Your task to perform on an android device: Show me productivity apps on the Play Store Image 0: 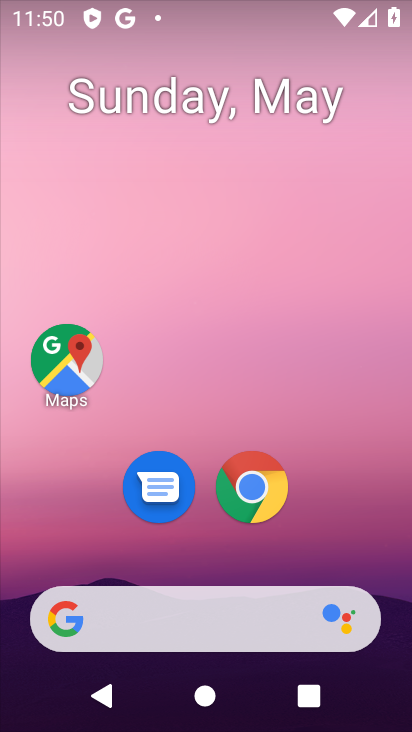
Step 0: drag from (322, 558) to (337, 2)
Your task to perform on an android device: Show me productivity apps on the Play Store Image 1: 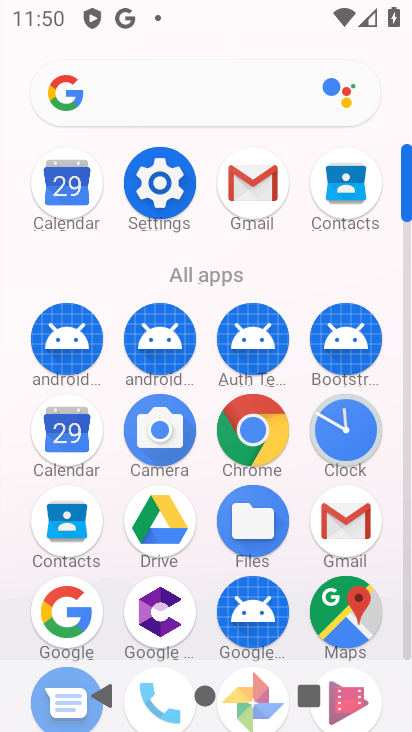
Step 1: drag from (197, 616) to (237, 237)
Your task to perform on an android device: Show me productivity apps on the Play Store Image 2: 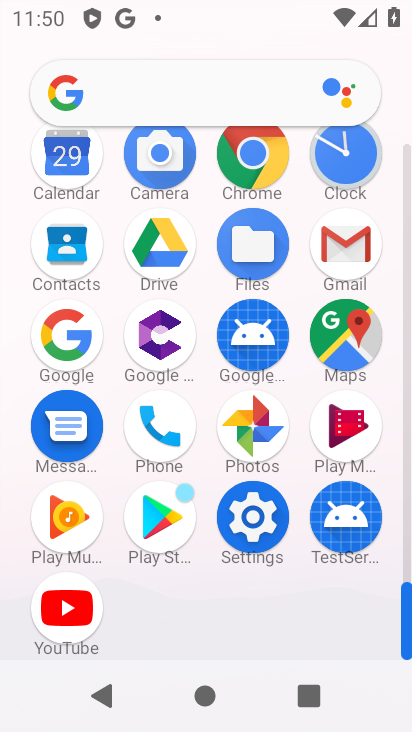
Step 2: click (156, 514)
Your task to perform on an android device: Show me productivity apps on the Play Store Image 3: 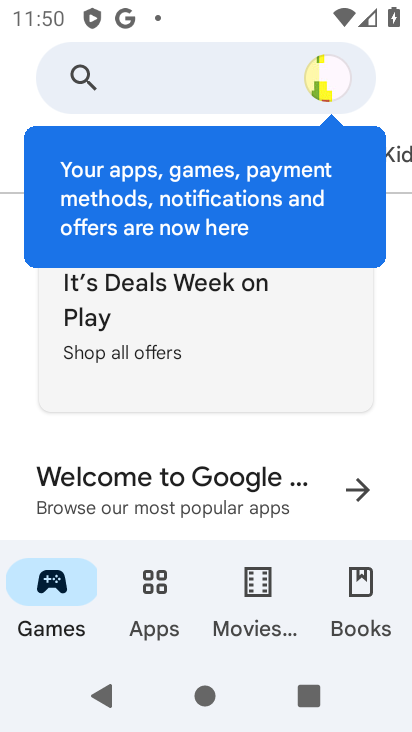
Step 3: click (146, 607)
Your task to perform on an android device: Show me productivity apps on the Play Store Image 4: 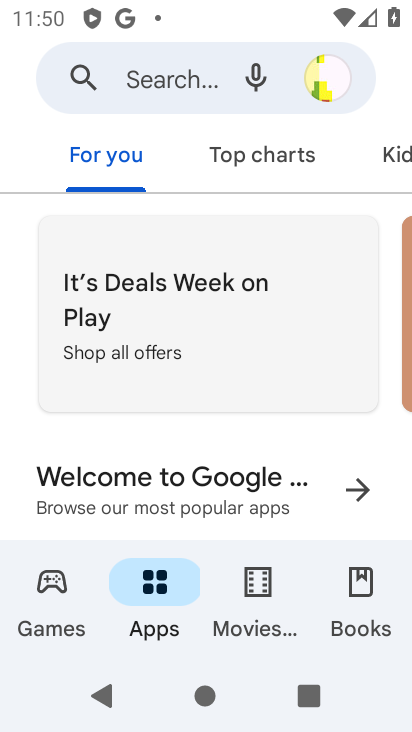
Step 4: drag from (394, 151) to (2, 144)
Your task to perform on an android device: Show me productivity apps on the Play Store Image 5: 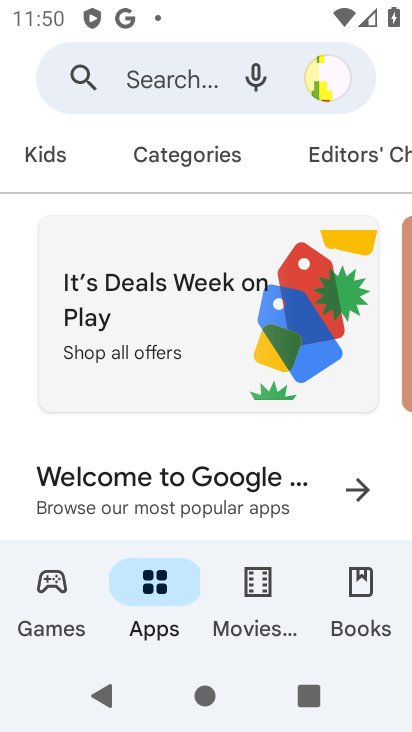
Step 5: click (198, 168)
Your task to perform on an android device: Show me productivity apps on the Play Store Image 6: 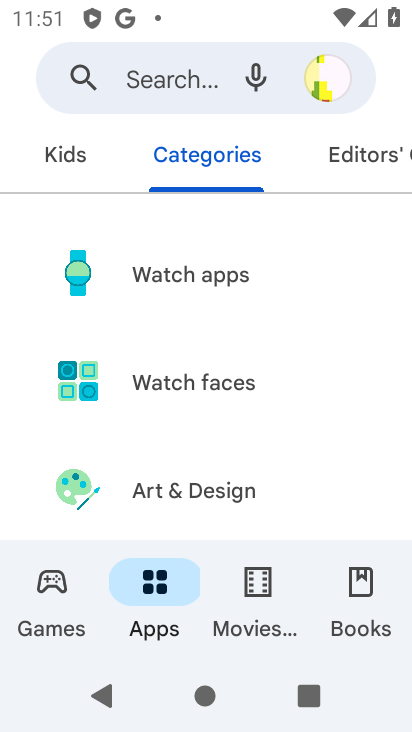
Step 6: drag from (225, 494) to (201, 33)
Your task to perform on an android device: Show me productivity apps on the Play Store Image 7: 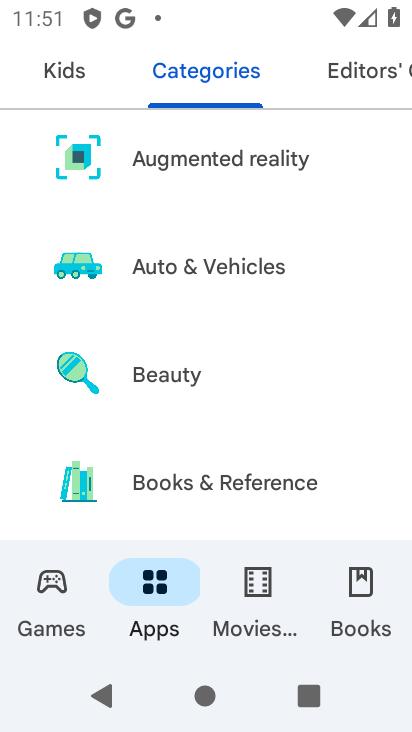
Step 7: drag from (218, 459) to (286, 22)
Your task to perform on an android device: Show me productivity apps on the Play Store Image 8: 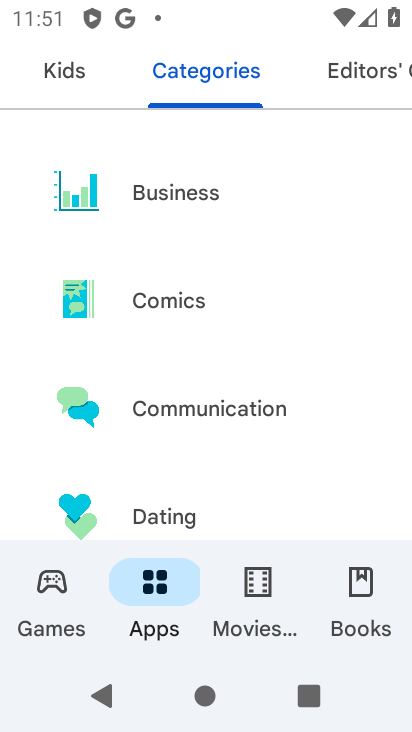
Step 8: drag from (247, 449) to (262, 39)
Your task to perform on an android device: Show me productivity apps on the Play Store Image 9: 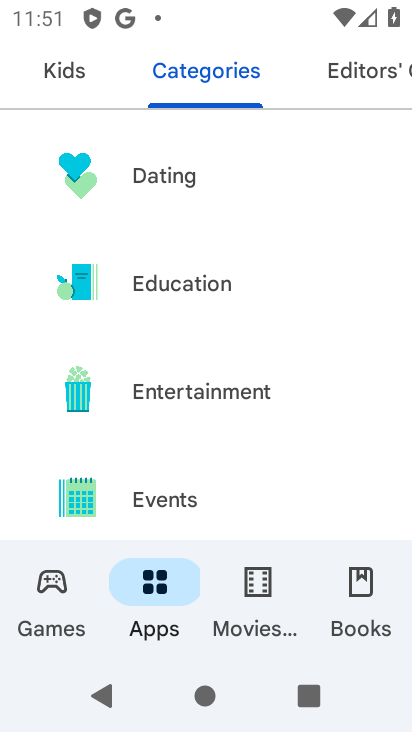
Step 9: drag from (159, 441) to (172, 54)
Your task to perform on an android device: Show me productivity apps on the Play Store Image 10: 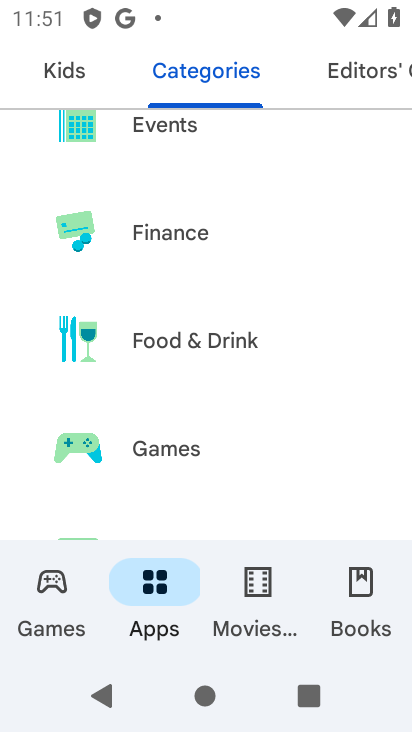
Step 10: drag from (238, 467) to (245, 35)
Your task to perform on an android device: Show me productivity apps on the Play Store Image 11: 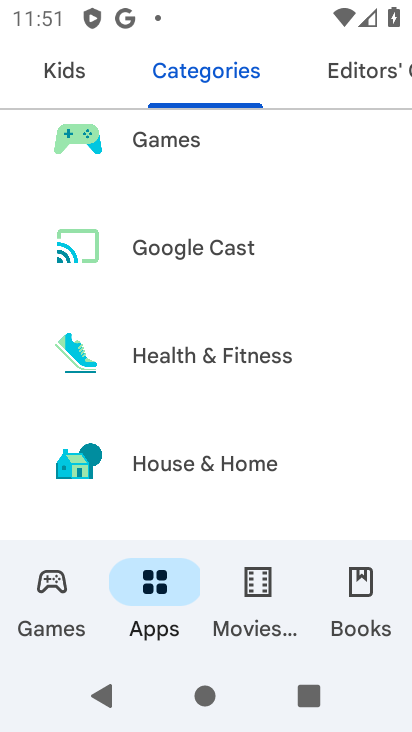
Step 11: drag from (241, 456) to (235, 4)
Your task to perform on an android device: Show me productivity apps on the Play Store Image 12: 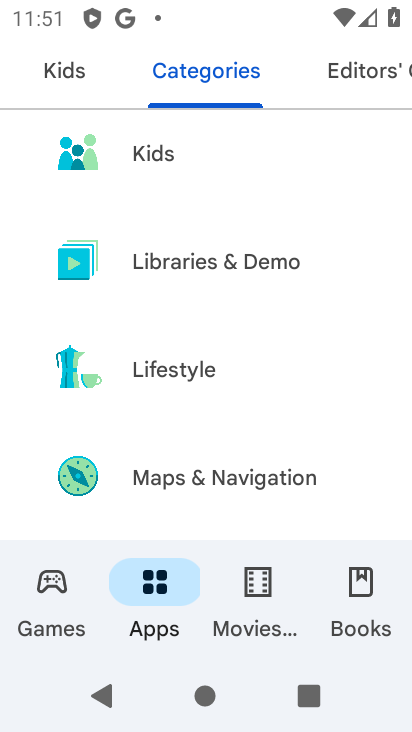
Step 12: drag from (196, 451) to (201, 36)
Your task to perform on an android device: Show me productivity apps on the Play Store Image 13: 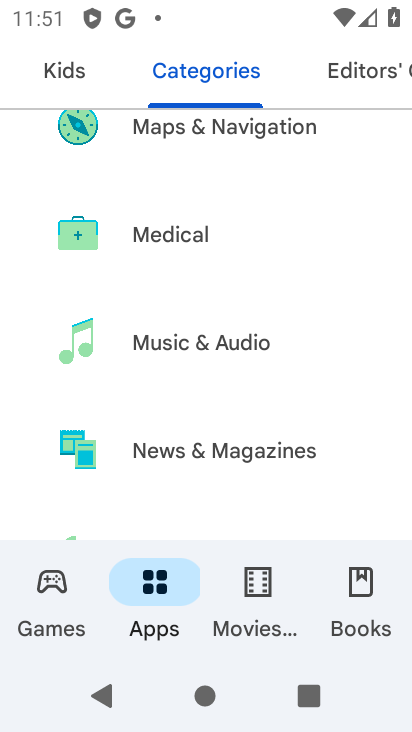
Step 13: drag from (198, 475) to (202, 12)
Your task to perform on an android device: Show me productivity apps on the Play Store Image 14: 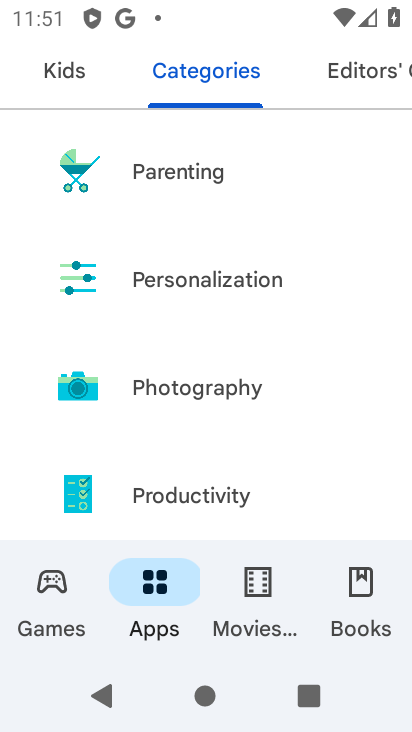
Step 14: click (177, 493)
Your task to perform on an android device: Show me productivity apps on the Play Store Image 15: 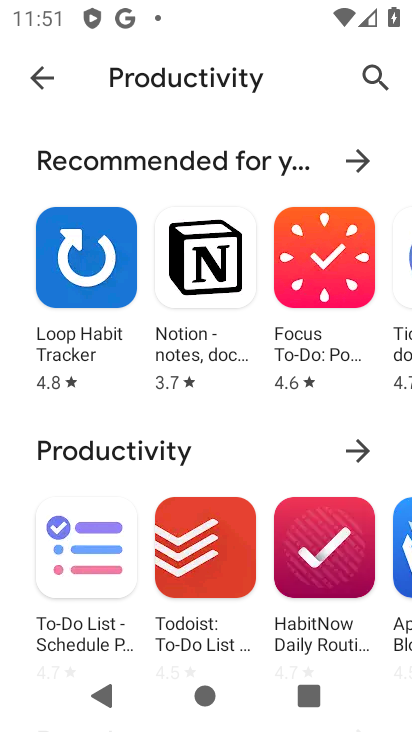
Step 15: task complete